Your task to perform on an android device: check google app version Image 0: 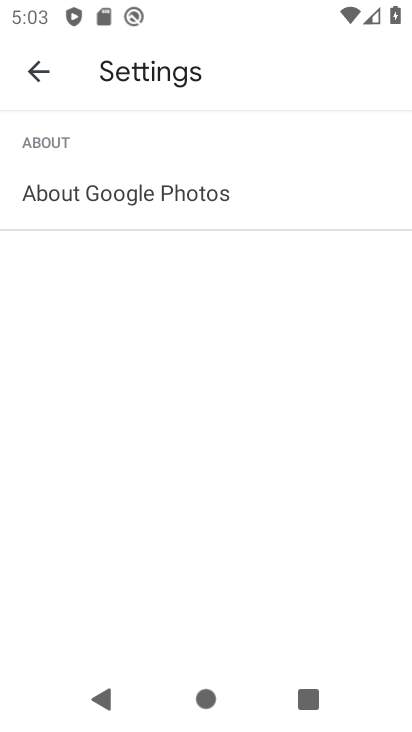
Step 0: press home button
Your task to perform on an android device: check google app version Image 1: 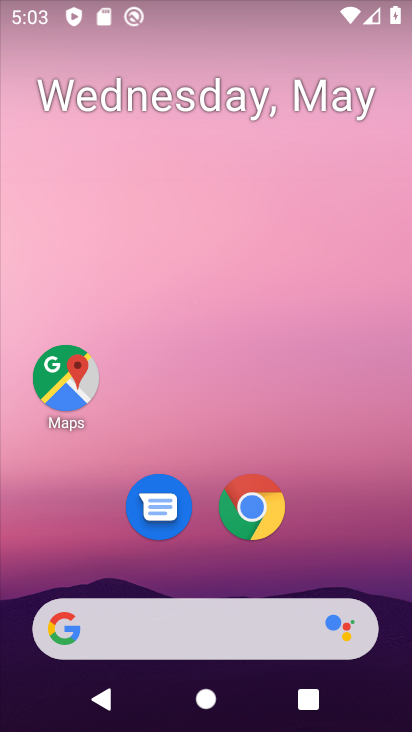
Step 1: drag from (330, 570) to (286, 61)
Your task to perform on an android device: check google app version Image 2: 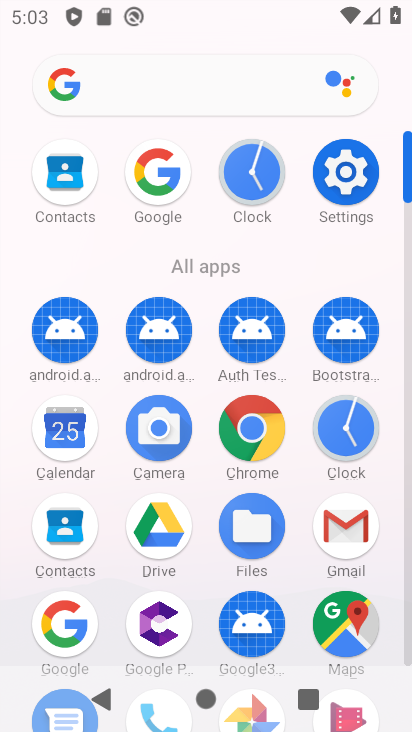
Step 2: drag from (308, 504) to (327, 244)
Your task to perform on an android device: check google app version Image 3: 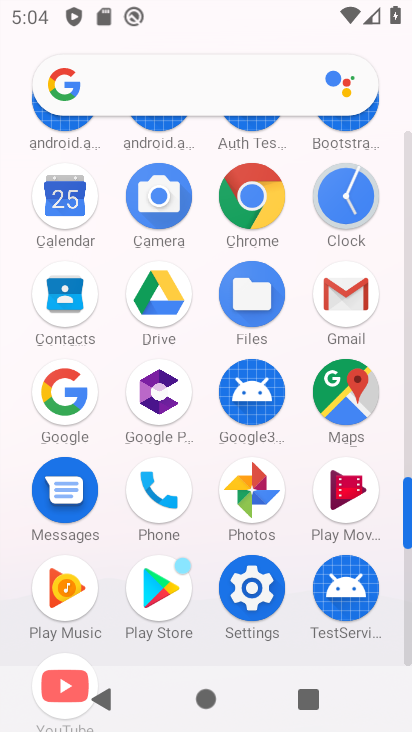
Step 3: click (59, 393)
Your task to perform on an android device: check google app version Image 4: 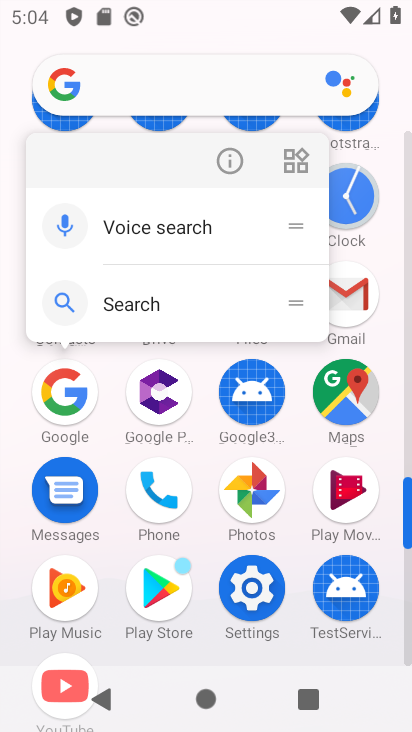
Step 4: click (236, 164)
Your task to perform on an android device: check google app version Image 5: 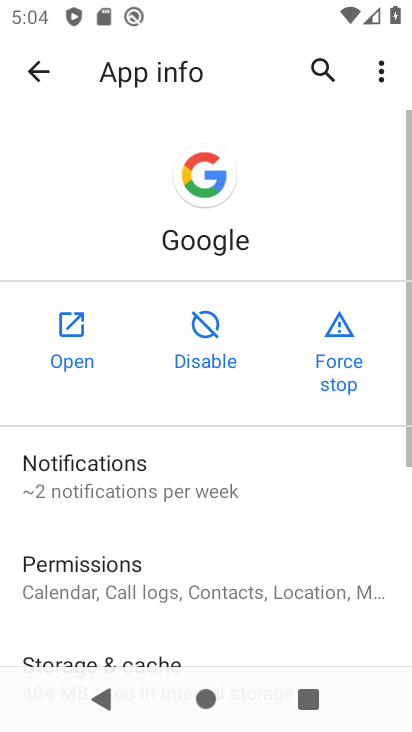
Step 5: drag from (221, 559) to (256, 365)
Your task to perform on an android device: check google app version Image 6: 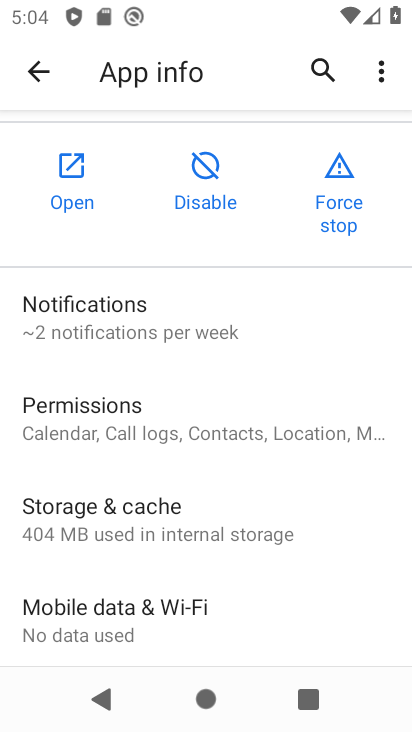
Step 6: drag from (202, 483) to (239, 327)
Your task to perform on an android device: check google app version Image 7: 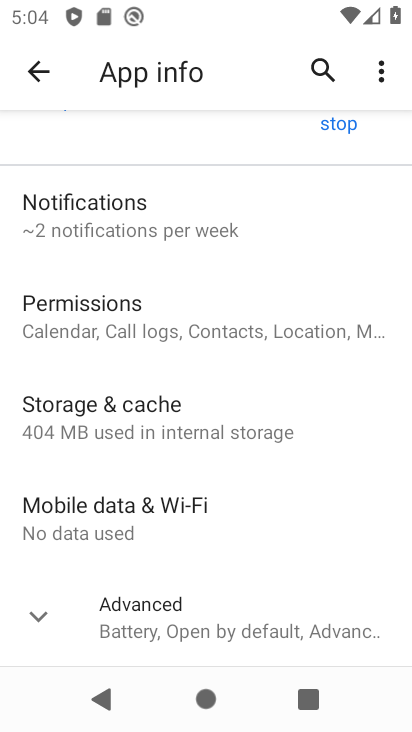
Step 7: drag from (188, 547) to (233, 368)
Your task to perform on an android device: check google app version Image 8: 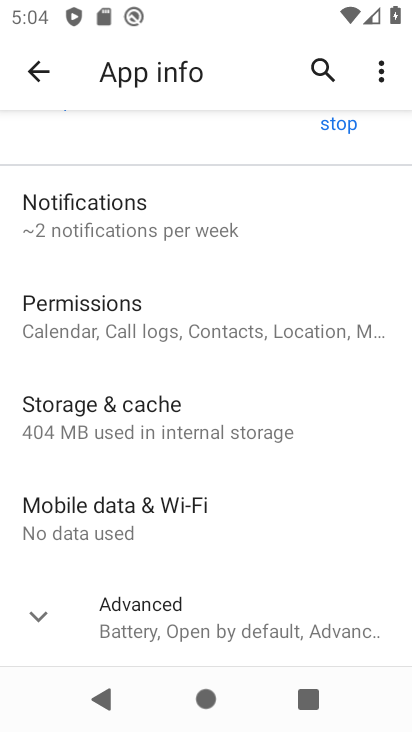
Step 8: click (194, 618)
Your task to perform on an android device: check google app version Image 9: 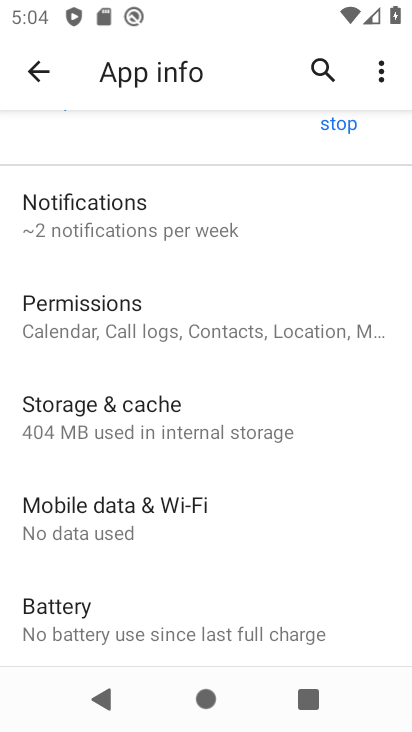
Step 9: task complete